Your task to perform on an android device: toggle location history Image 0: 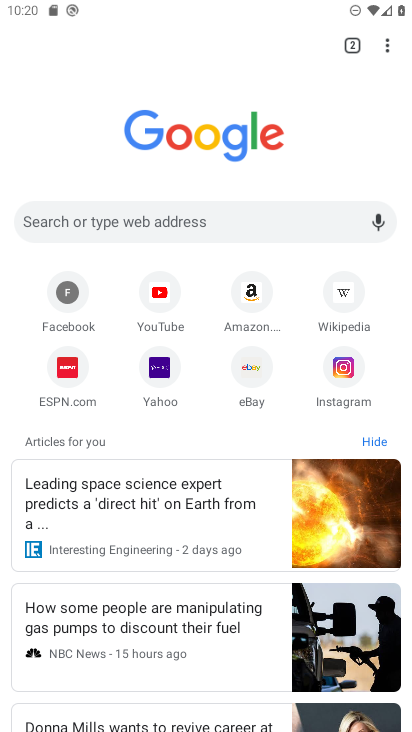
Step 0: press home button
Your task to perform on an android device: toggle location history Image 1: 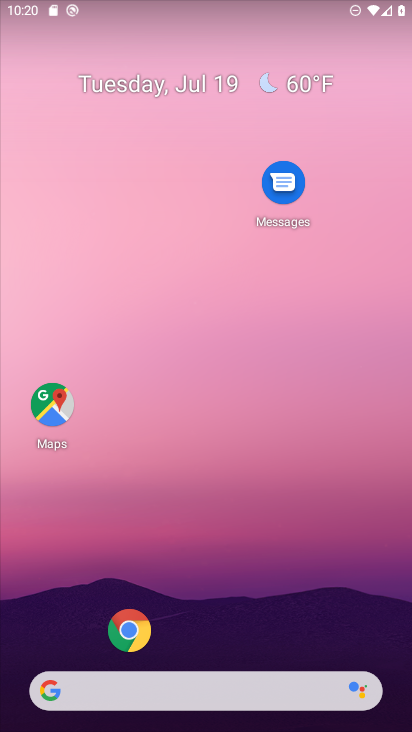
Step 1: drag from (21, 684) to (188, 156)
Your task to perform on an android device: toggle location history Image 2: 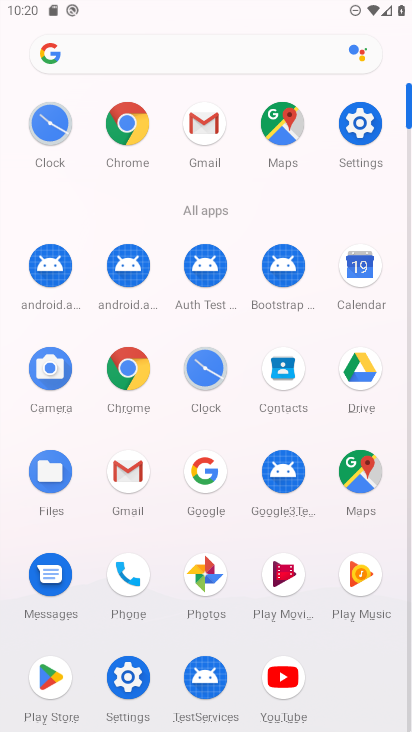
Step 2: click (110, 683)
Your task to perform on an android device: toggle location history Image 3: 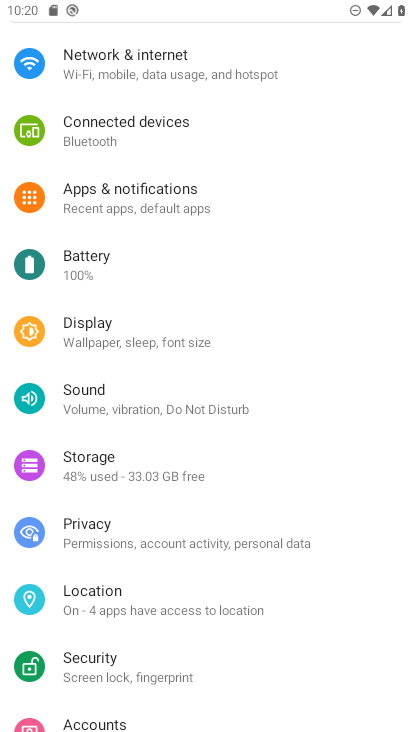
Step 3: click (137, 607)
Your task to perform on an android device: toggle location history Image 4: 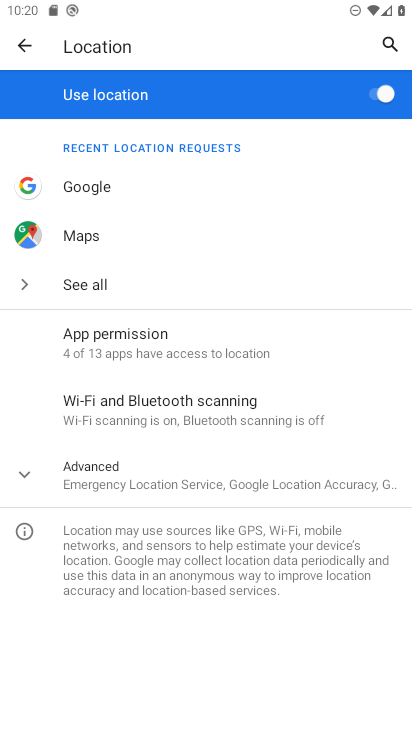
Step 4: click (95, 474)
Your task to perform on an android device: toggle location history Image 5: 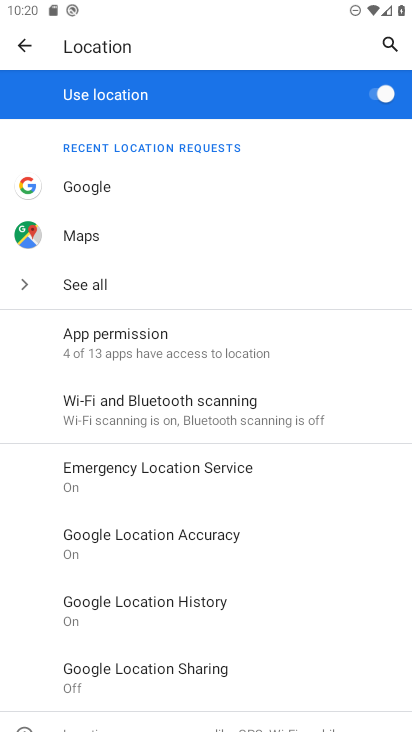
Step 5: task complete